Your task to perform on an android device: turn off airplane mode Image 0: 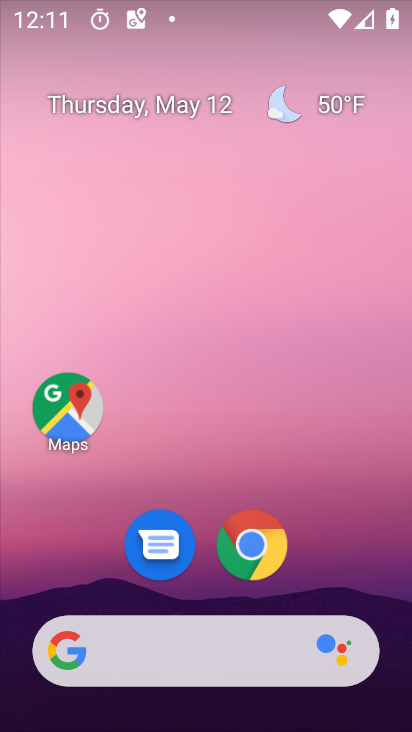
Step 0: drag from (171, 619) to (208, 72)
Your task to perform on an android device: turn off airplane mode Image 1: 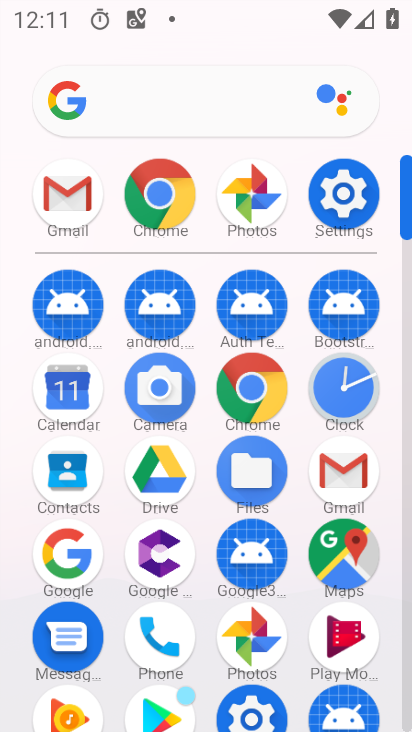
Step 1: click (332, 187)
Your task to perform on an android device: turn off airplane mode Image 2: 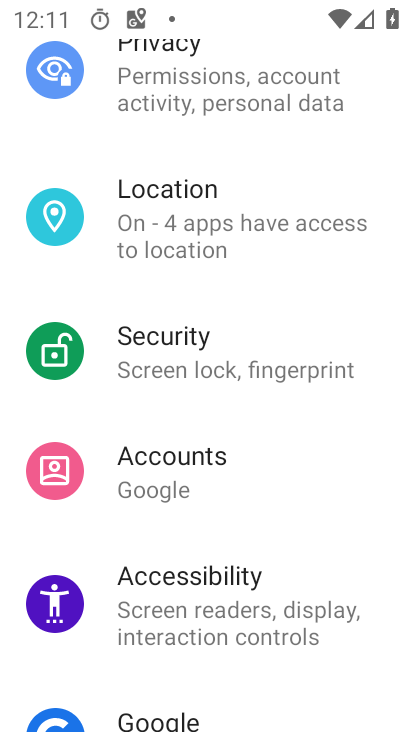
Step 2: drag from (236, 226) to (283, 720)
Your task to perform on an android device: turn off airplane mode Image 3: 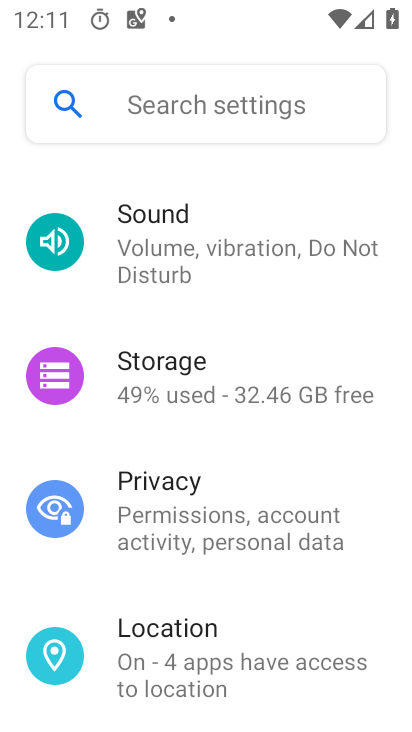
Step 3: drag from (212, 165) to (268, 569)
Your task to perform on an android device: turn off airplane mode Image 4: 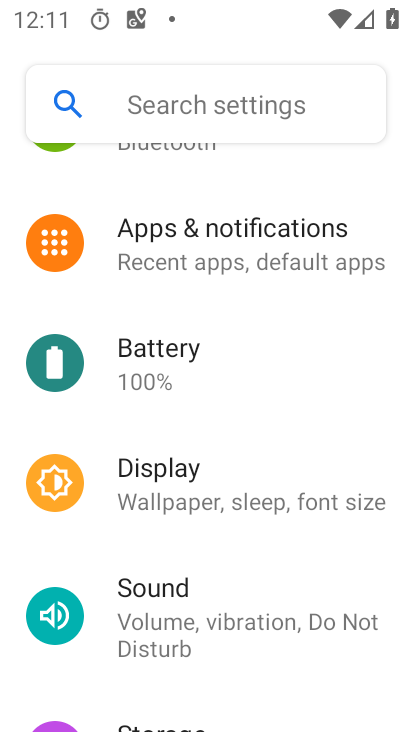
Step 4: drag from (240, 251) to (247, 636)
Your task to perform on an android device: turn off airplane mode Image 5: 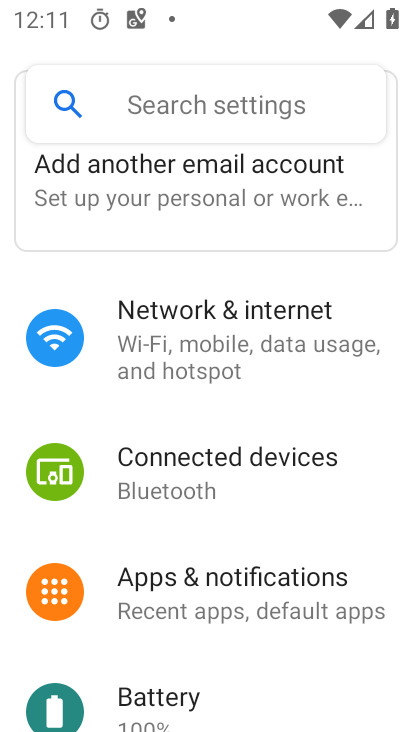
Step 5: click (190, 357)
Your task to perform on an android device: turn off airplane mode Image 6: 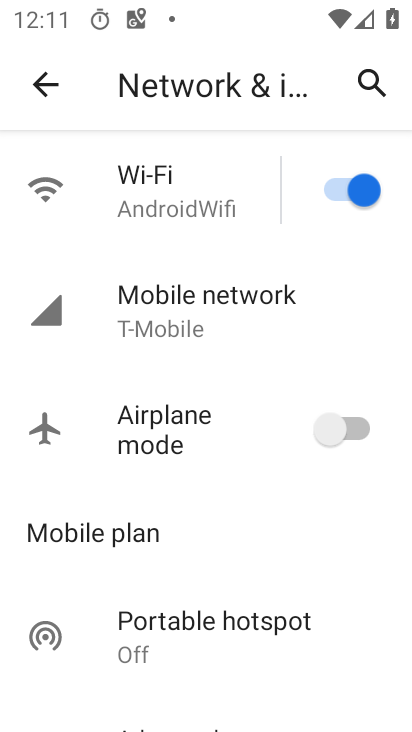
Step 6: task complete